Your task to perform on an android device: turn on priority inbox in the gmail app Image 0: 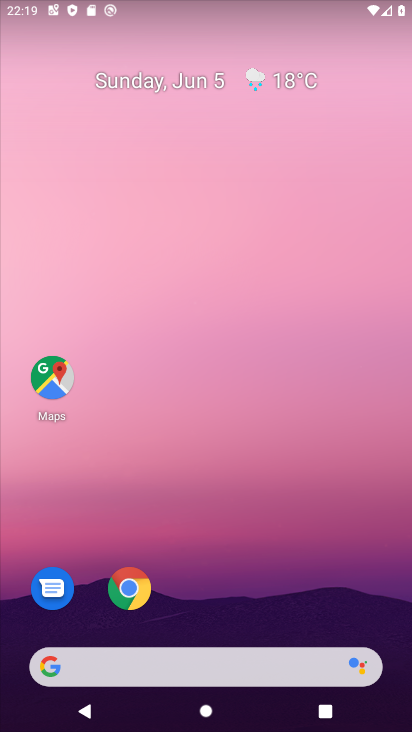
Step 0: drag from (326, 614) to (339, 111)
Your task to perform on an android device: turn on priority inbox in the gmail app Image 1: 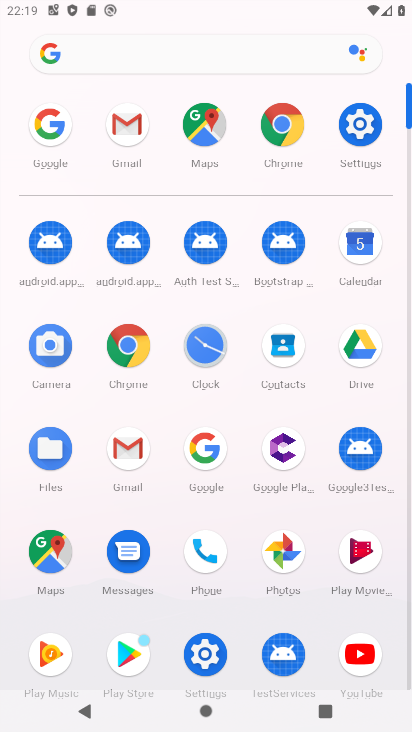
Step 1: click (138, 443)
Your task to perform on an android device: turn on priority inbox in the gmail app Image 2: 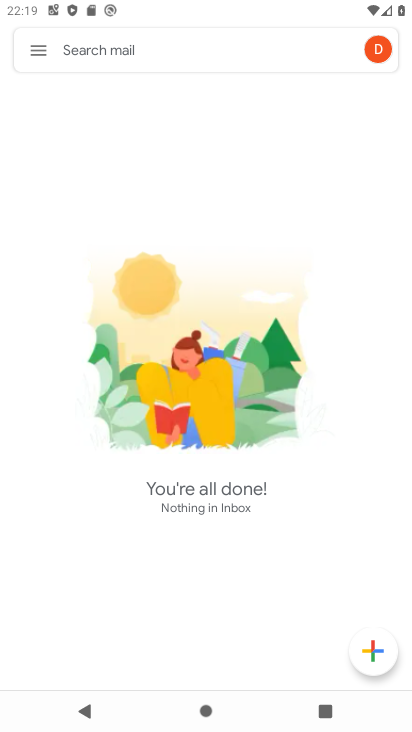
Step 2: click (43, 56)
Your task to perform on an android device: turn on priority inbox in the gmail app Image 3: 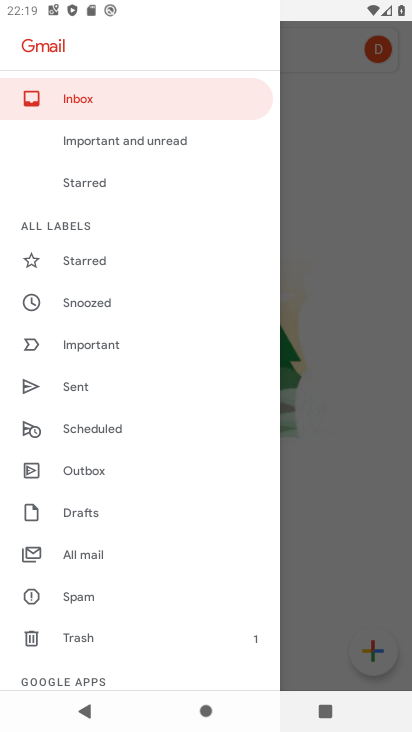
Step 3: drag from (175, 430) to (203, 164)
Your task to perform on an android device: turn on priority inbox in the gmail app Image 4: 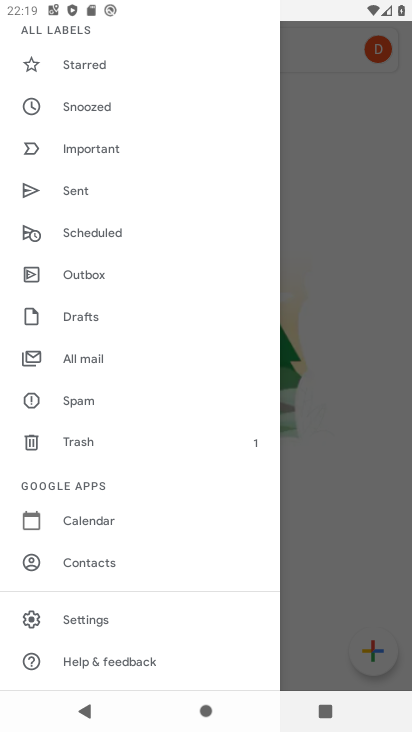
Step 4: drag from (191, 479) to (203, 188)
Your task to perform on an android device: turn on priority inbox in the gmail app Image 5: 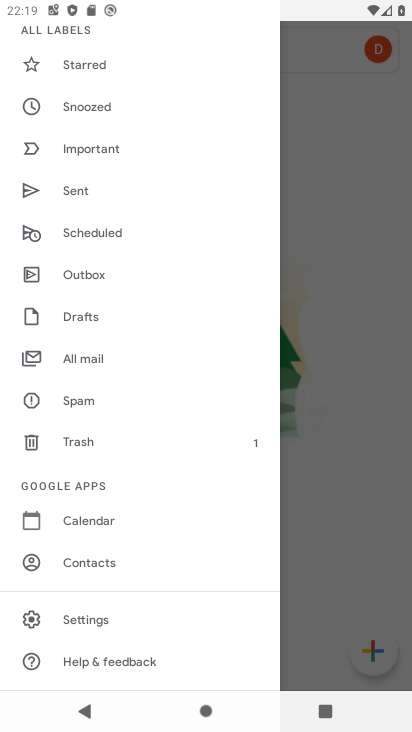
Step 5: drag from (221, 142) to (217, 384)
Your task to perform on an android device: turn on priority inbox in the gmail app Image 6: 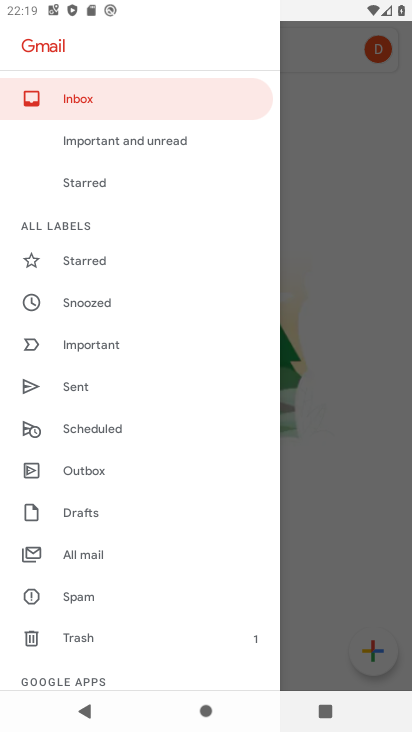
Step 6: drag from (205, 404) to (202, 191)
Your task to perform on an android device: turn on priority inbox in the gmail app Image 7: 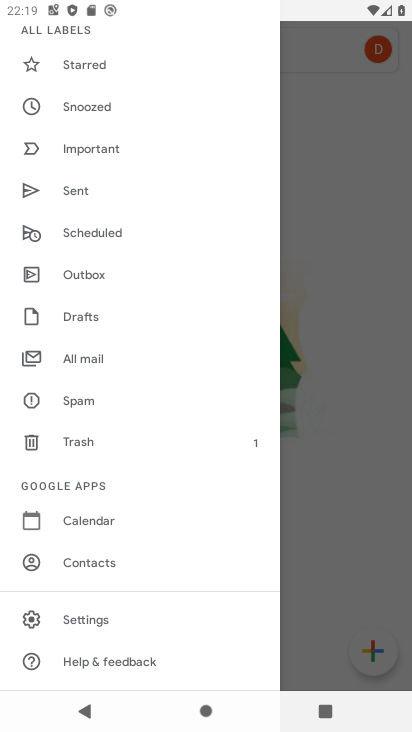
Step 7: click (145, 624)
Your task to perform on an android device: turn on priority inbox in the gmail app Image 8: 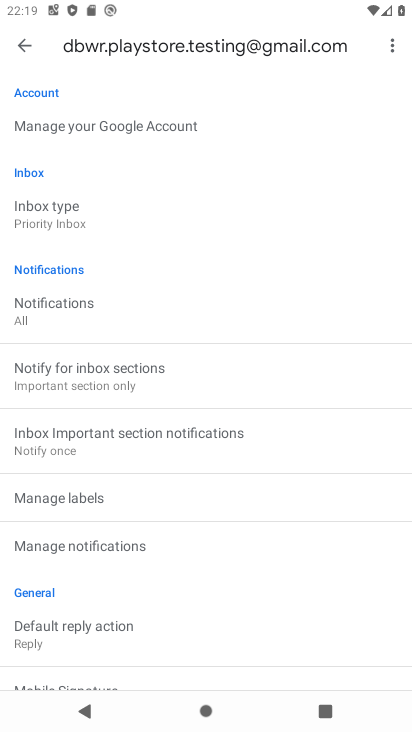
Step 8: task complete